Your task to perform on an android device: Open Yahoo.com Image 0: 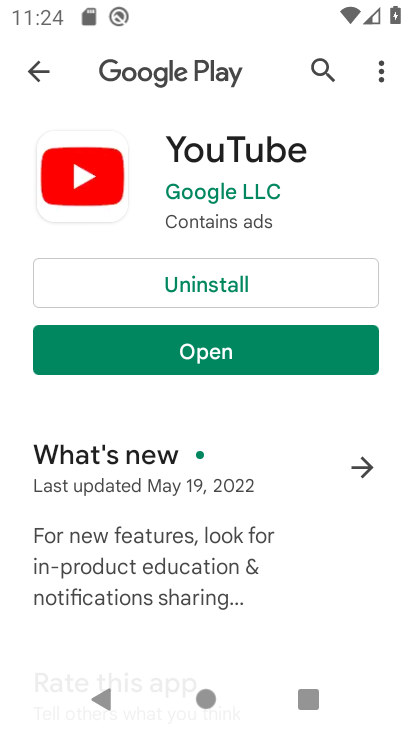
Step 0: press back button
Your task to perform on an android device: Open Yahoo.com Image 1: 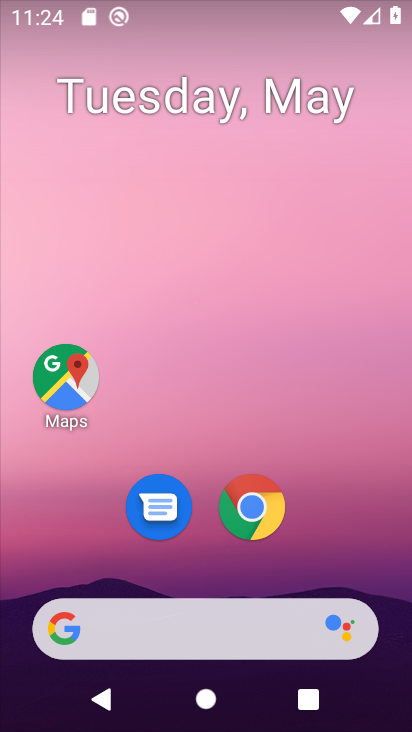
Step 1: drag from (265, 636) to (265, 6)
Your task to perform on an android device: Open Yahoo.com Image 2: 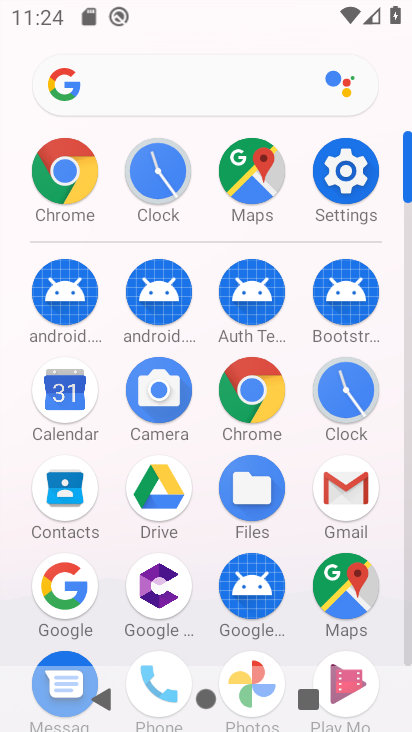
Step 2: click (88, 177)
Your task to perform on an android device: Open Yahoo.com Image 3: 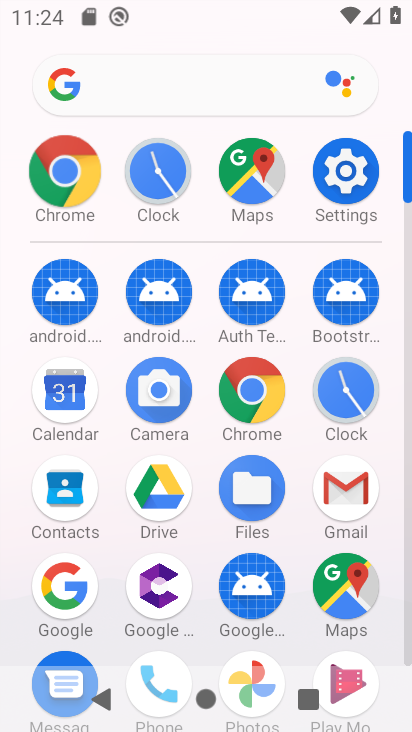
Step 3: click (82, 176)
Your task to perform on an android device: Open Yahoo.com Image 4: 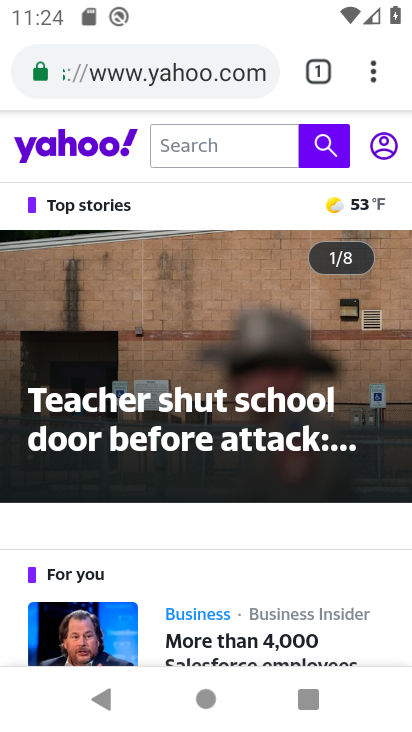
Step 4: task complete